Your task to perform on an android device: clear history in the chrome app Image 0: 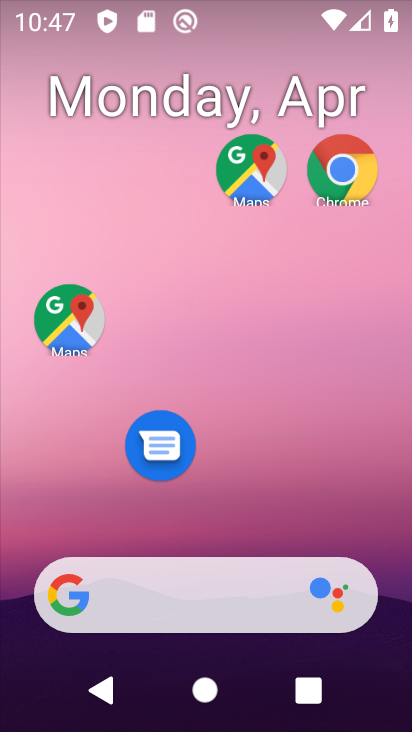
Step 0: click (349, 174)
Your task to perform on an android device: clear history in the chrome app Image 1: 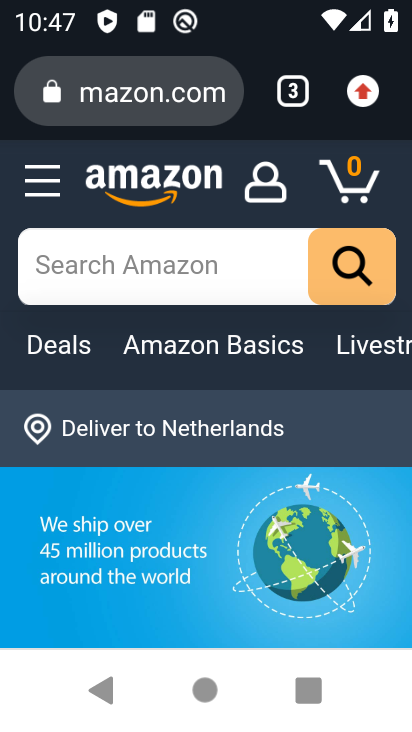
Step 1: click (362, 104)
Your task to perform on an android device: clear history in the chrome app Image 2: 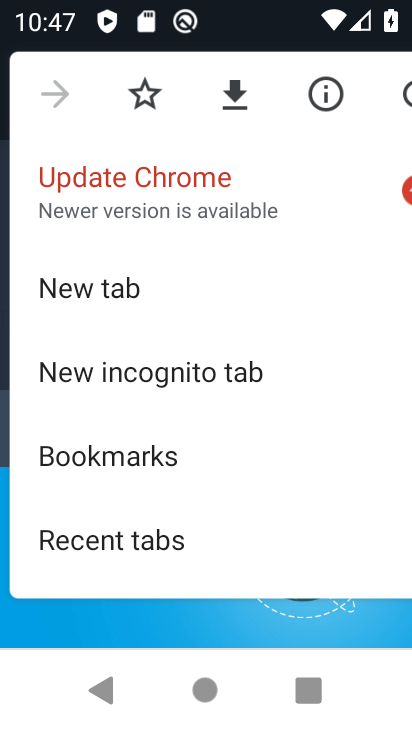
Step 2: drag from (256, 465) to (284, 215)
Your task to perform on an android device: clear history in the chrome app Image 3: 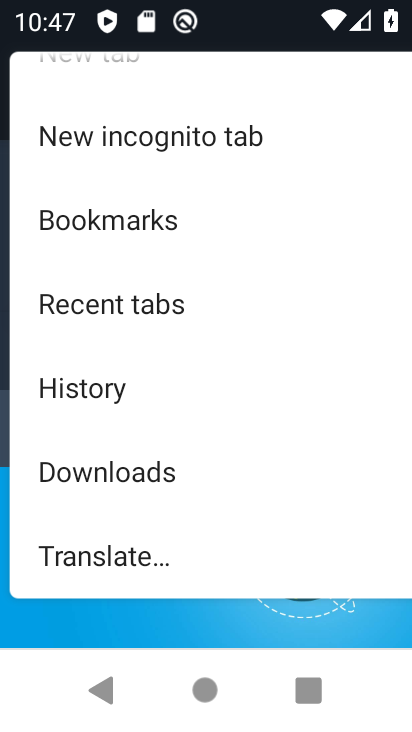
Step 3: click (96, 385)
Your task to perform on an android device: clear history in the chrome app Image 4: 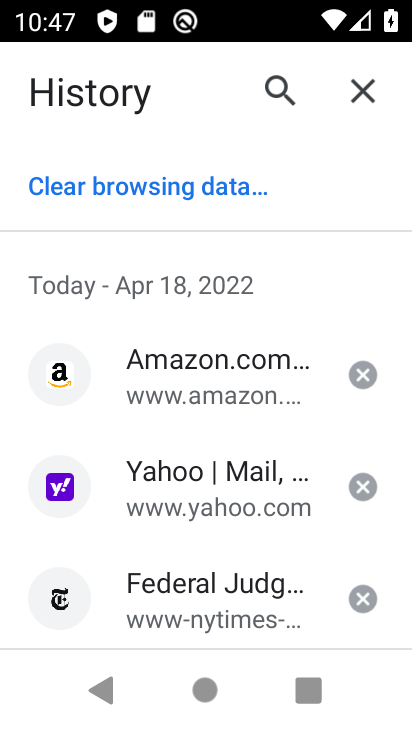
Step 4: click (238, 183)
Your task to perform on an android device: clear history in the chrome app Image 5: 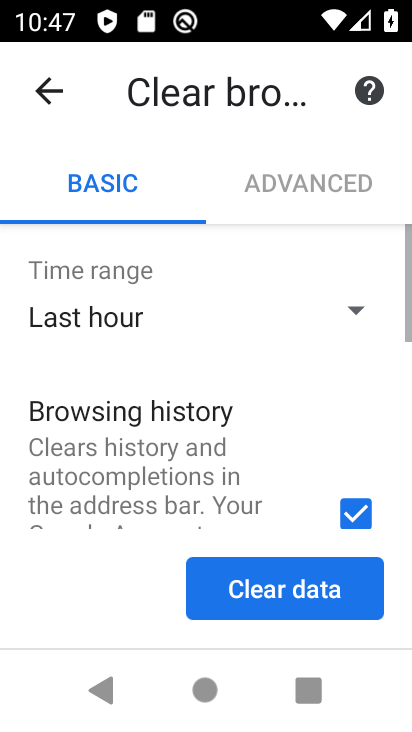
Step 5: drag from (302, 502) to (364, 265)
Your task to perform on an android device: clear history in the chrome app Image 6: 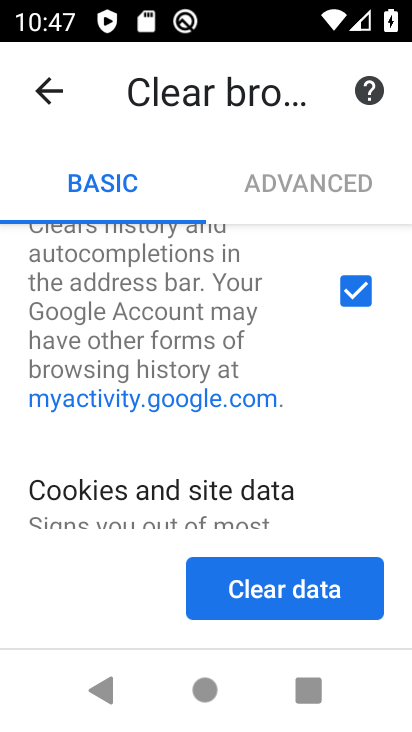
Step 6: drag from (273, 475) to (315, 205)
Your task to perform on an android device: clear history in the chrome app Image 7: 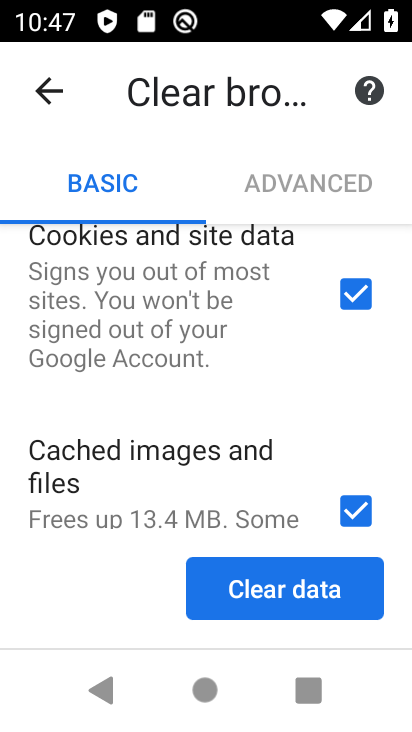
Step 7: click (275, 568)
Your task to perform on an android device: clear history in the chrome app Image 8: 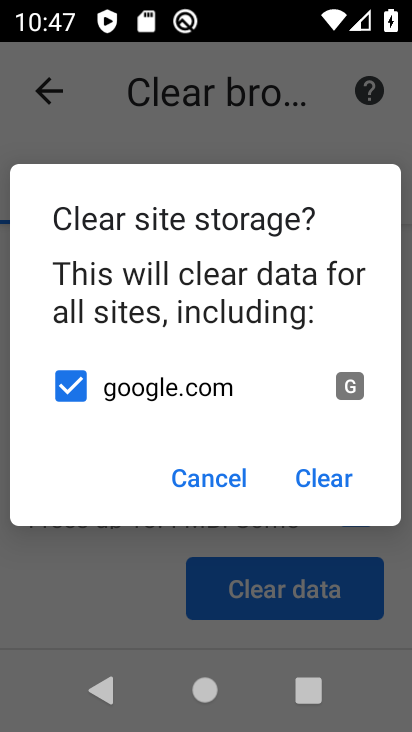
Step 8: click (326, 475)
Your task to perform on an android device: clear history in the chrome app Image 9: 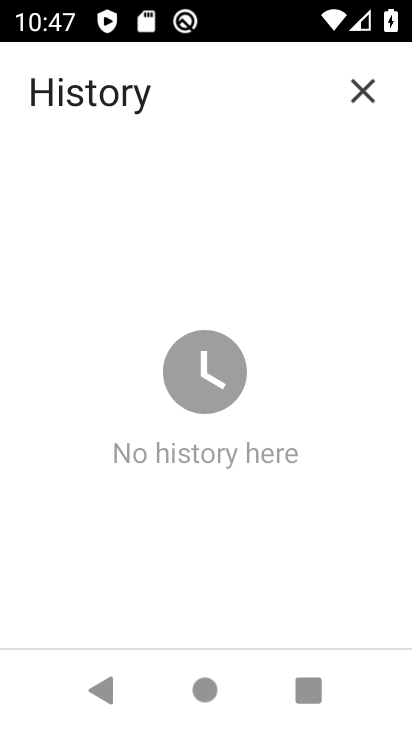
Step 9: task complete